Your task to perform on an android device: Set the phone to "Do not disturb". Image 0: 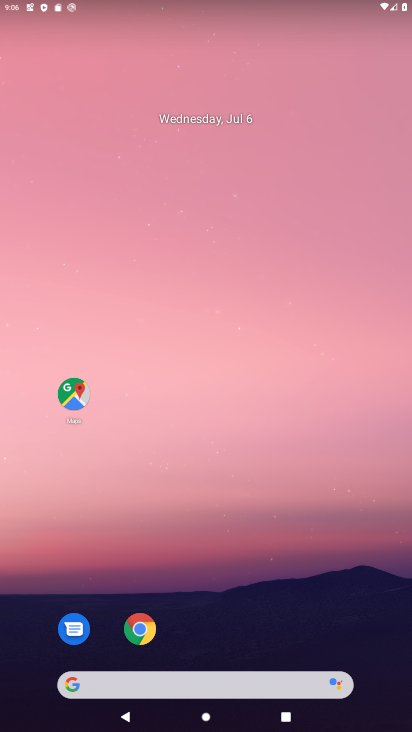
Step 0: drag from (325, 657) to (401, 0)
Your task to perform on an android device: Set the phone to "Do not disturb". Image 1: 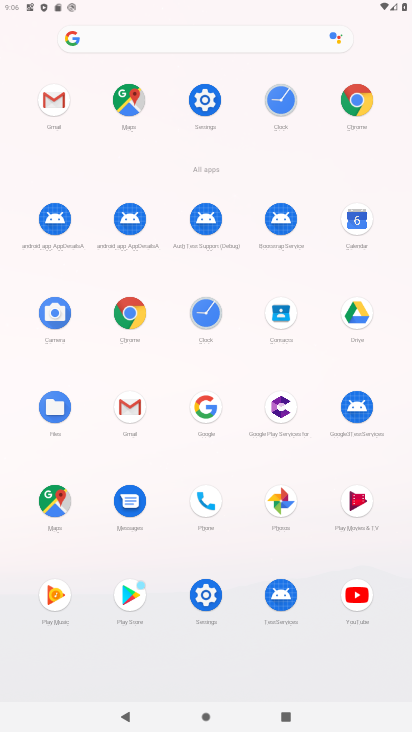
Step 1: click (190, 92)
Your task to perform on an android device: Set the phone to "Do not disturb". Image 2: 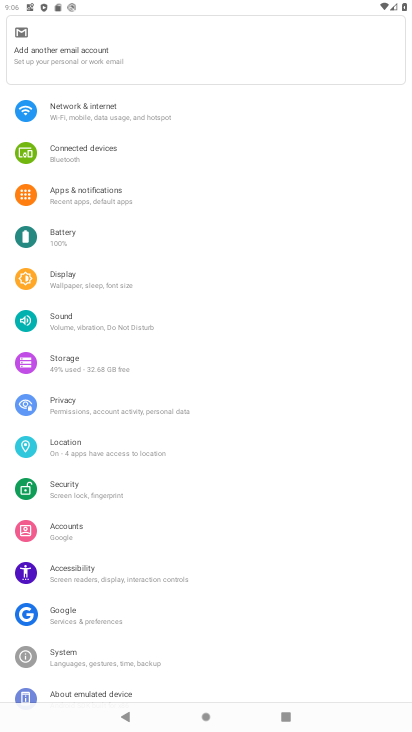
Step 2: click (101, 325)
Your task to perform on an android device: Set the phone to "Do not disturb". Image 3: 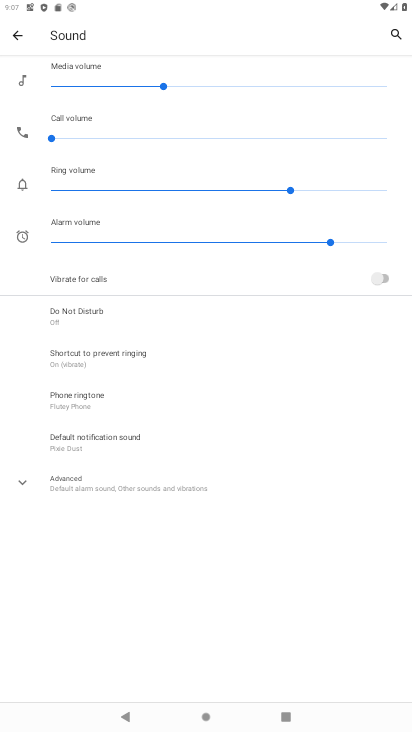
Step 3: click (100, 318)
Your task to perform on an android device: Set the phone to "Do not disturb". Image 4: 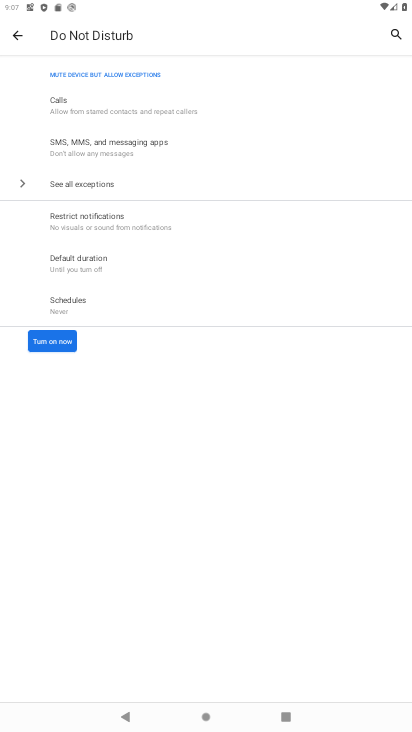
Step 4: click (61, 349)
Your task to perform on an android device: Set the phone to "Do not disturb". Image 5: 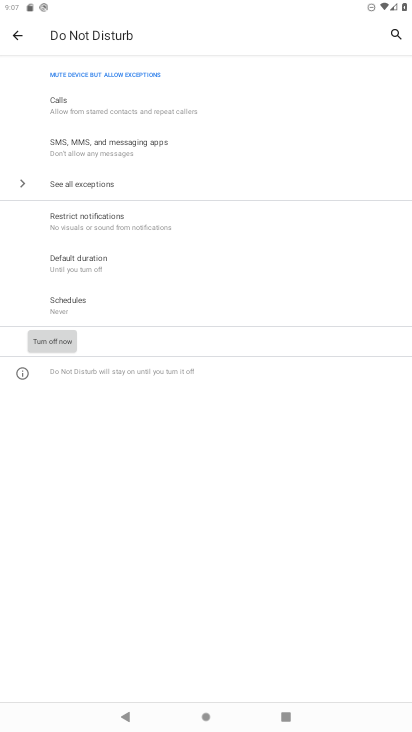
Step 5: task complete